Your task to perform on an android device: Do I have any events today? Image 0: 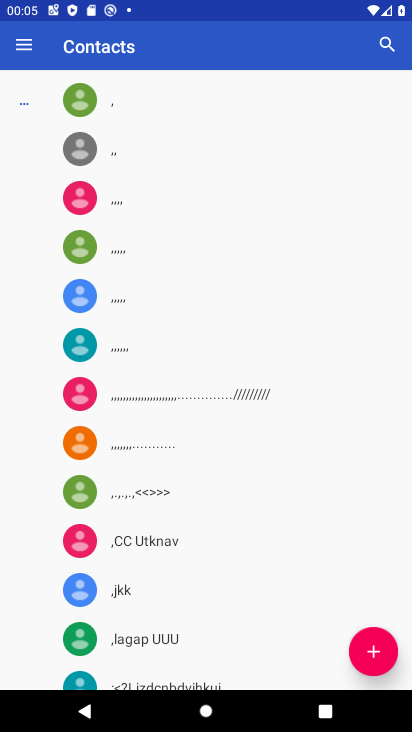
Step 0: press home button
Your task to perform on an android device: Do I have any events today? Image 1: 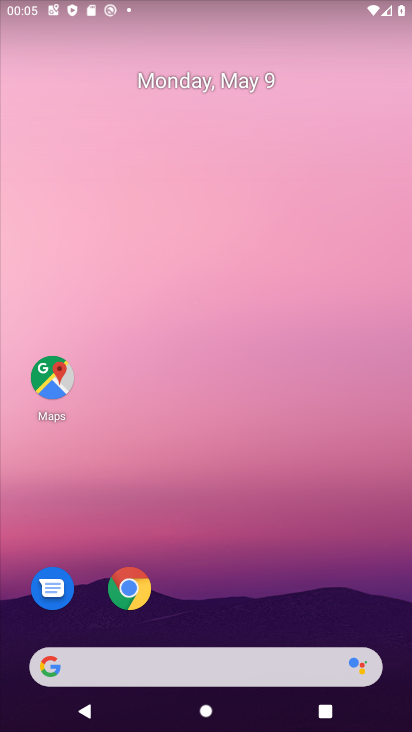
Step 1: drag from (244, 578) to (113, 19)
Your task to perform on an android device: Do I have any events today? Image 2: 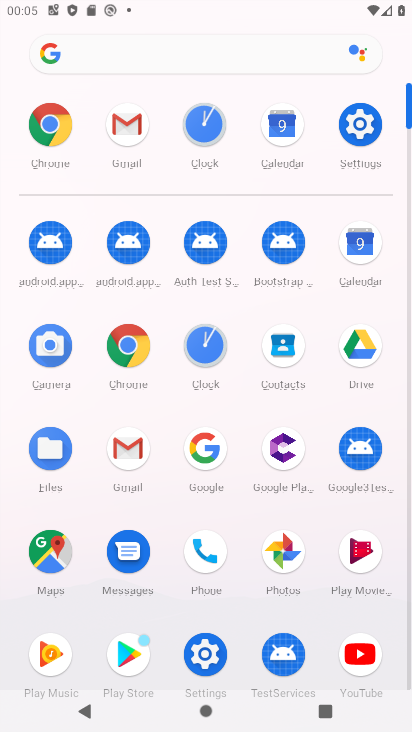
Step 2: click (364, 238)
Your task to perform on an android device: Do I have any events today? Image 3: 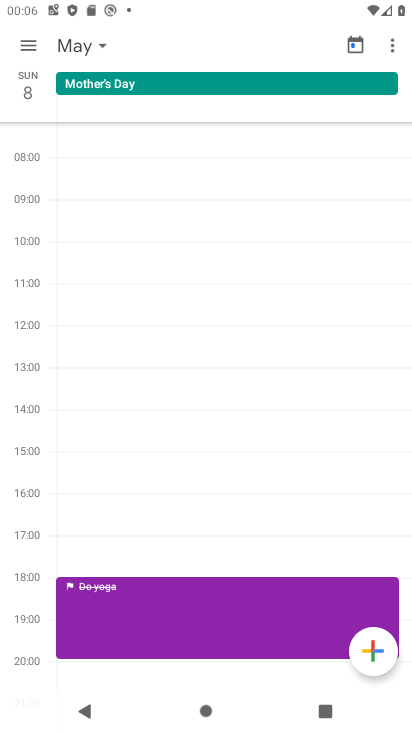
Step 3: task complete